Your task to perform on an android device: Go to eBay Image 0: 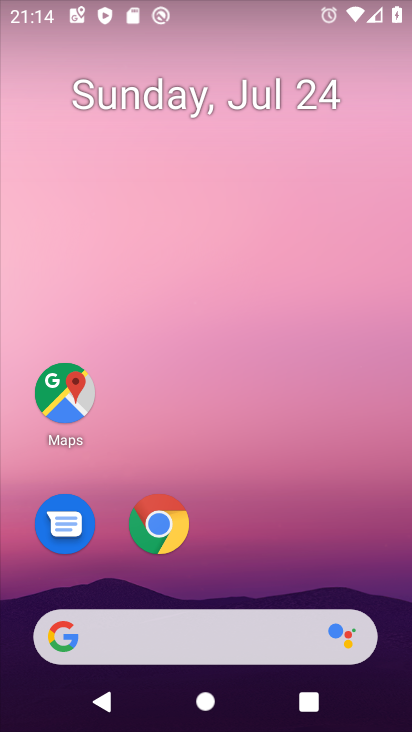
Step 0: click (235, 639)
Your task to perform on an android device: Go to eBay Image 1: 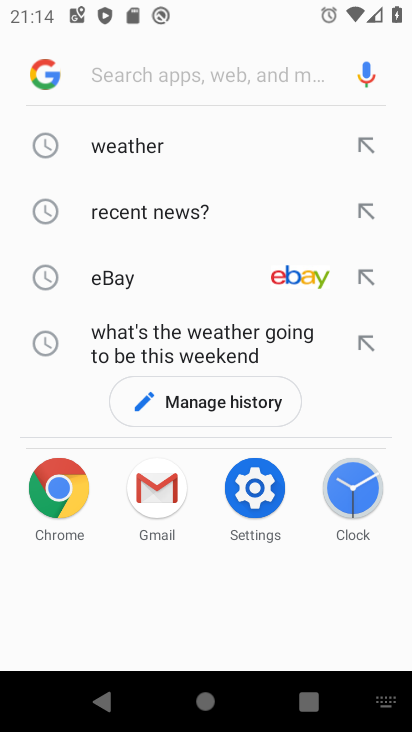
Step 1: click (118, 277)
Your task to perform on an android device: Go to eBay Image 2: 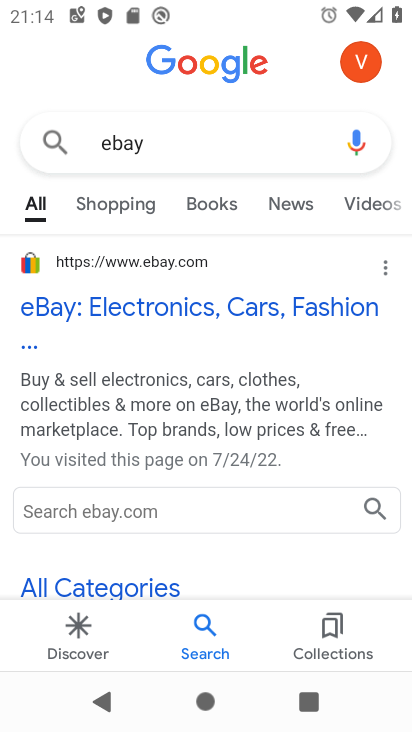
Step 2: click (57, 309)
Your task to perform on an android device: Go to eBay Image 3: 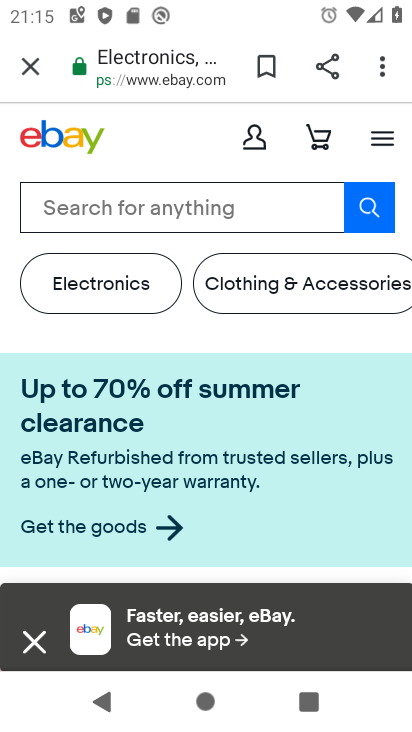
Step 3: task complete